Your task to perform on an android device: change timer sound Image 0: 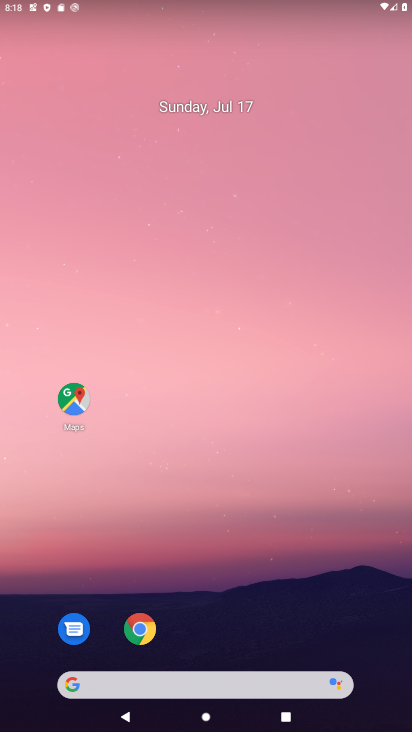
Step 0: drag from (229, 722) to (231, 148)
Your task to perform on an android device: change timer sound Image 1: 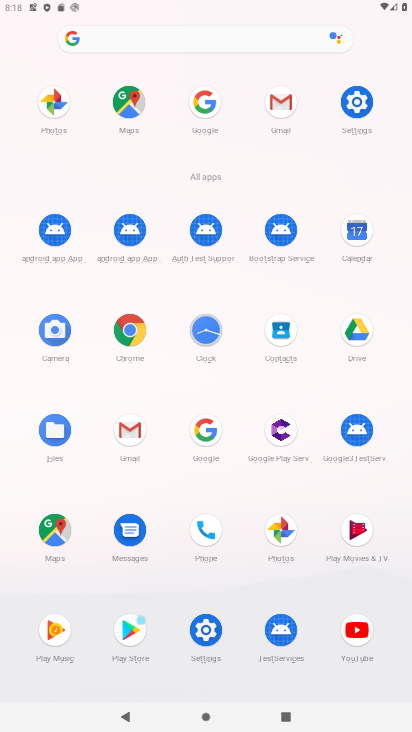
Step 1: click (205, 335)
Your task to perform on an android device: change timer sound Image 2: 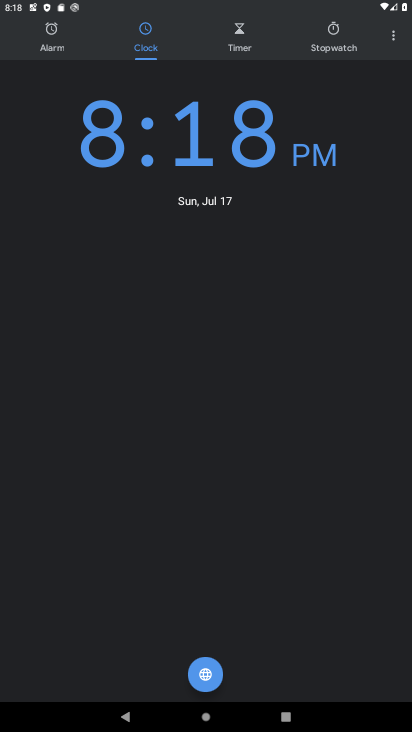
Step 2: click (394, 36)
Your task to perform on an android device: change timer sound Image 3: 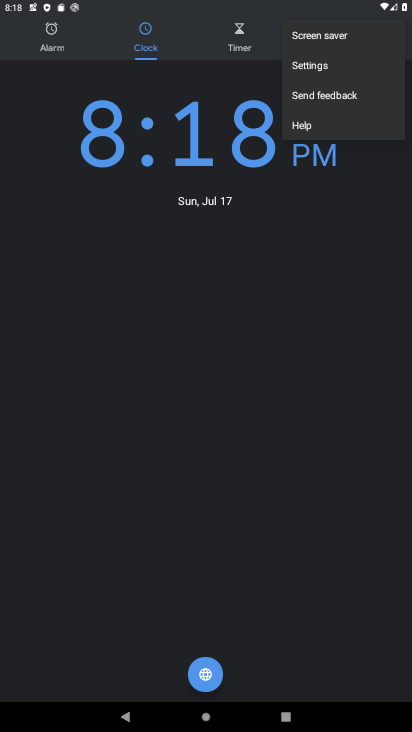
Step 3: click (326, 61)
Your task to perform on an android device: change timer sound Image 4: 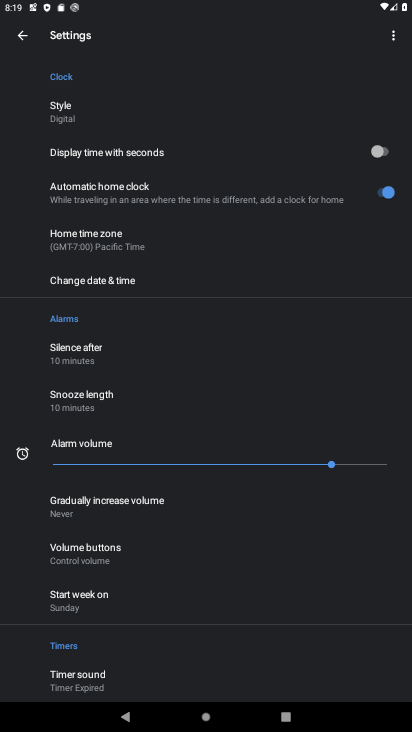
Step 4: drag from (105, 619) to (135, 461)
Your task to perform on an android device: change timer sound Image 5: 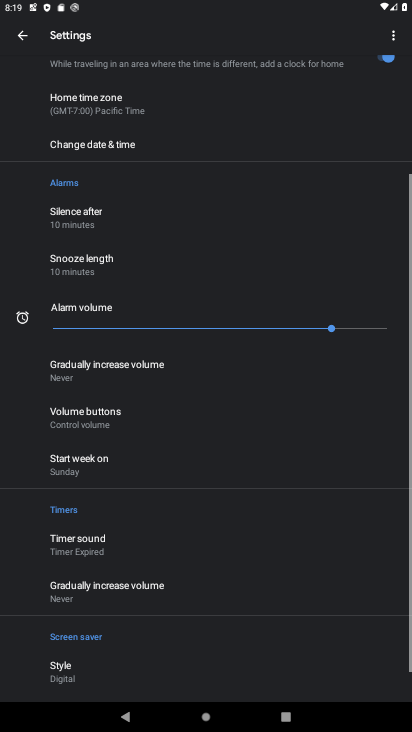
Step 5: drag from (152, 432) to (214, 328)
Your task to perform on an android device: change timer sound Image 6: 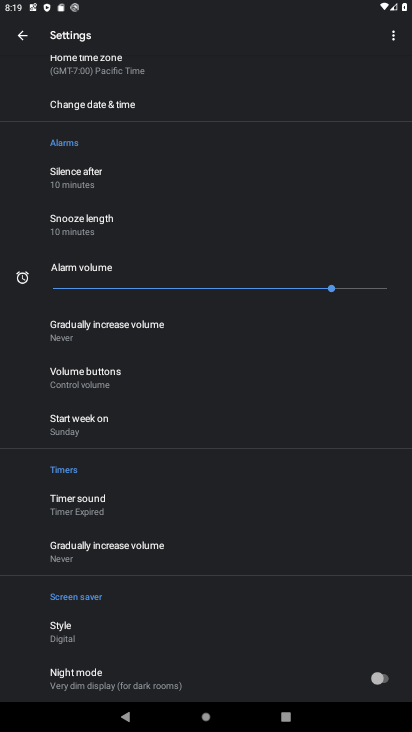
Step 6: click (92, 504)
Your task to perform on an android device: change timer sound Image 7: 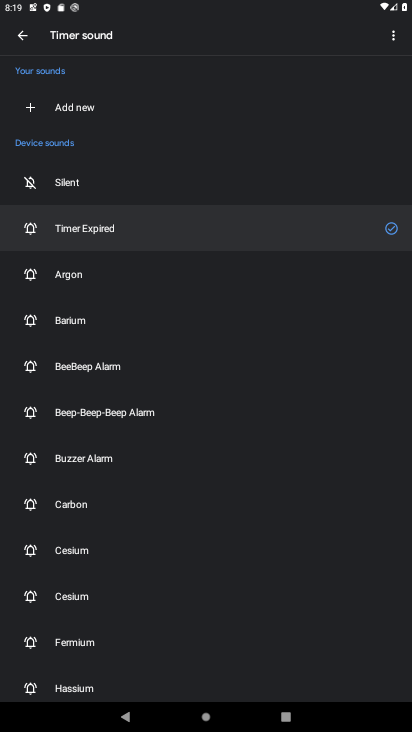
Step 7: click (76, 600)
Your task to perform on an android device: change timer sound Image 8: 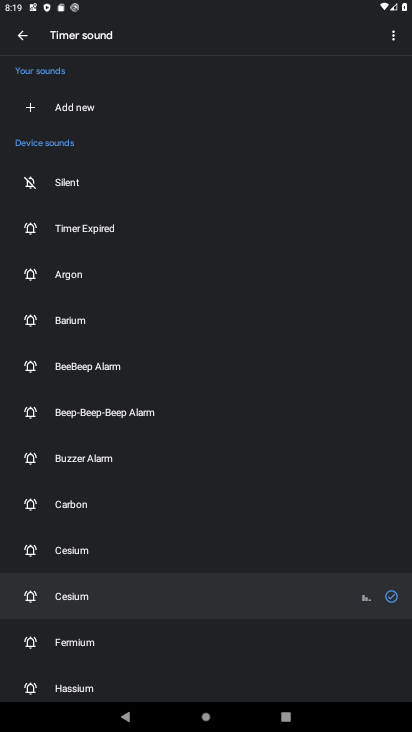
Step 8: task complete